Your task to perform on an android device: What's the news in Brazil? Image 0: 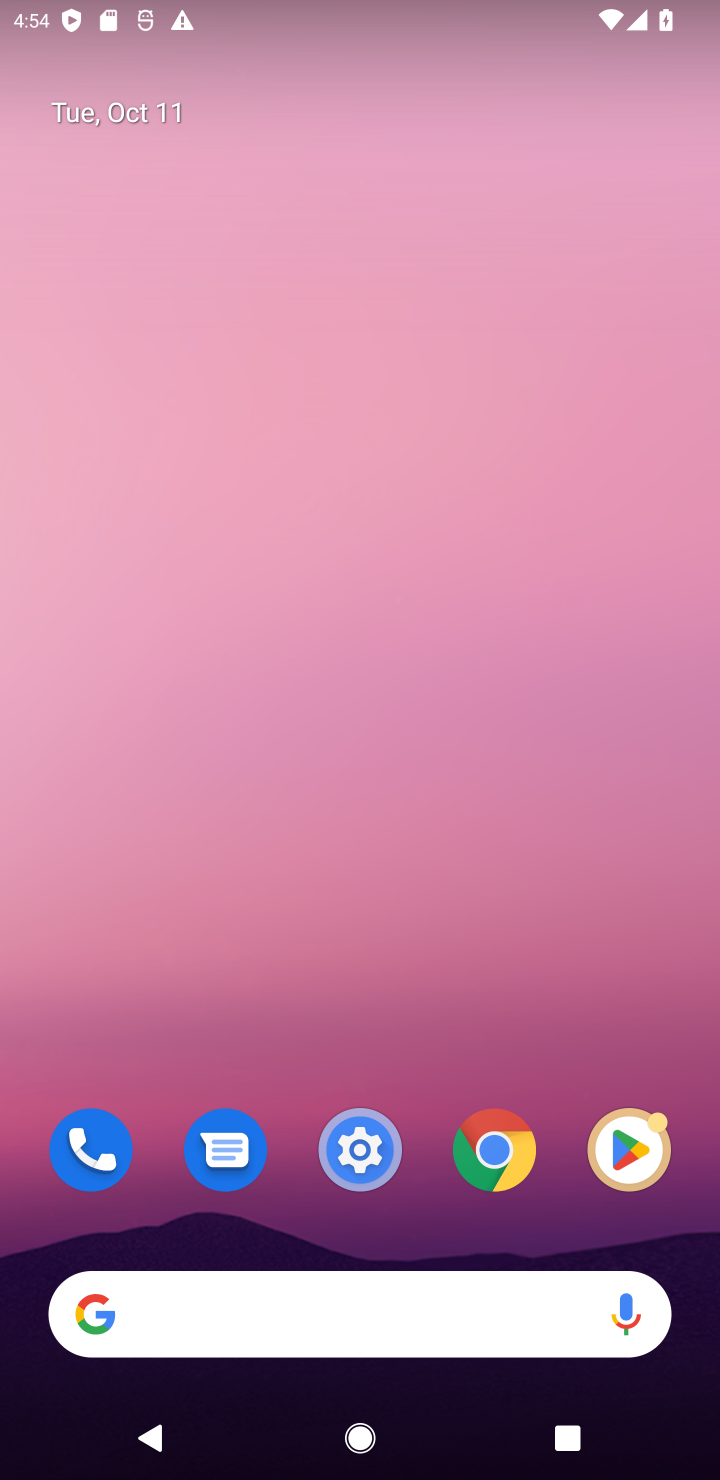
Step 0: click (488, 1151)
Your task to perform on an android device: What's the news in Brazil? Image 1: 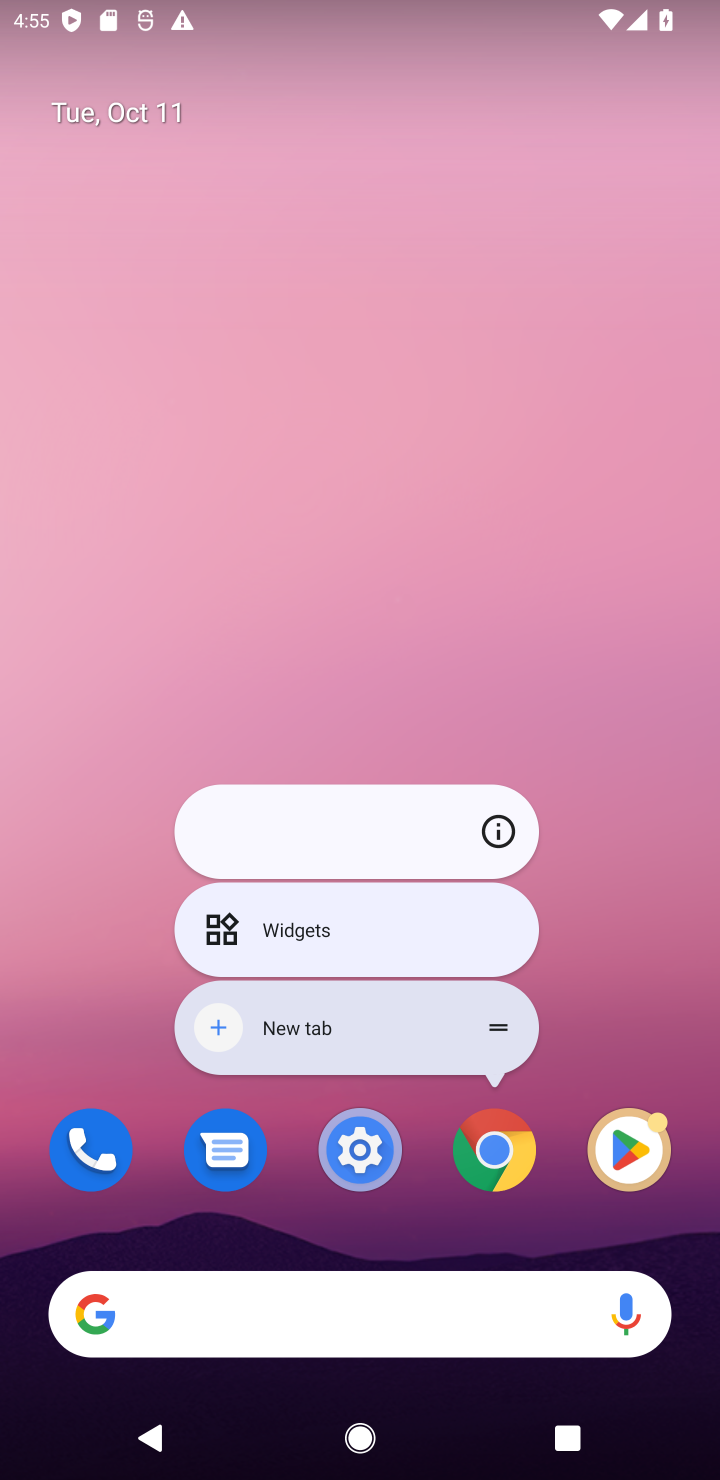
Step 1: click (605, 978)
Your task to perform on an android device: What's the news in Brazil? Image 2: 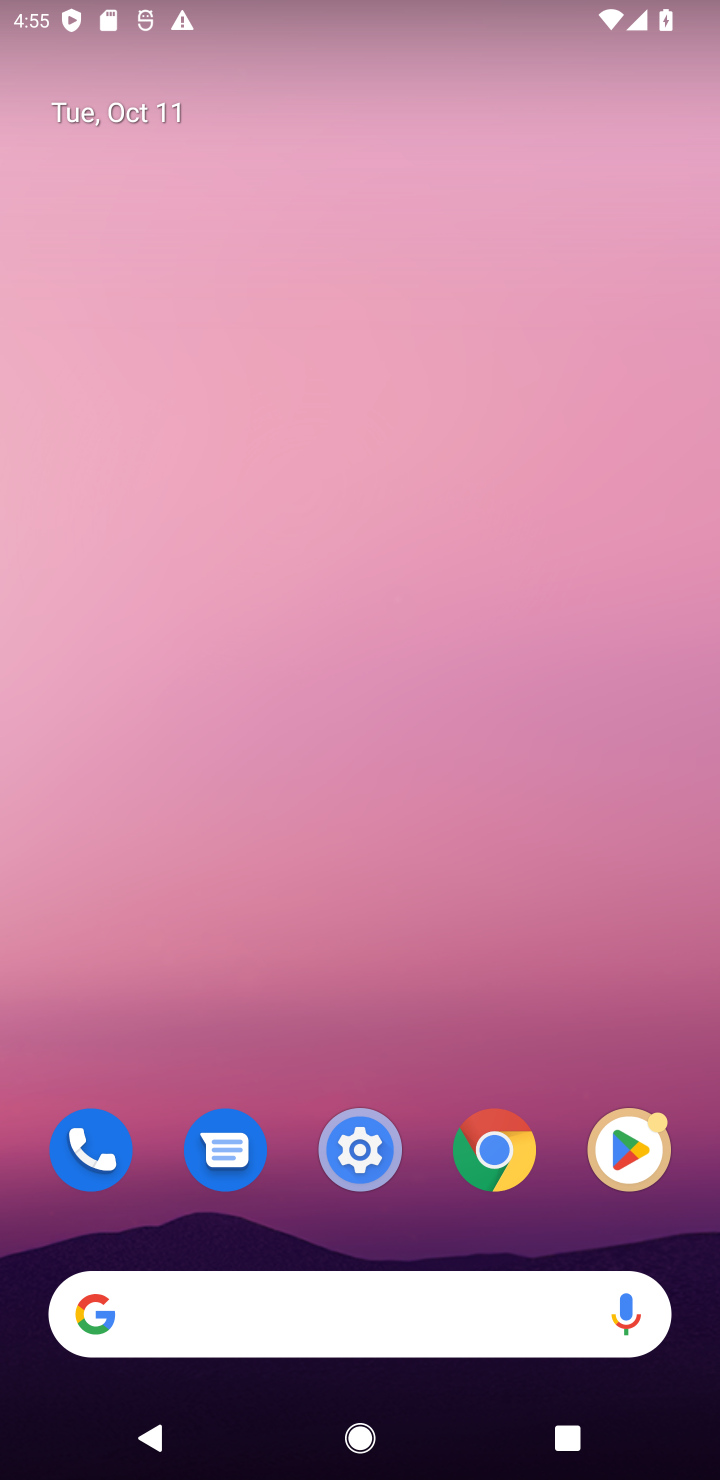
Step 2: click (513, 1158)
Your task to perform on an android device: What's the news in Brazil? Image 3: 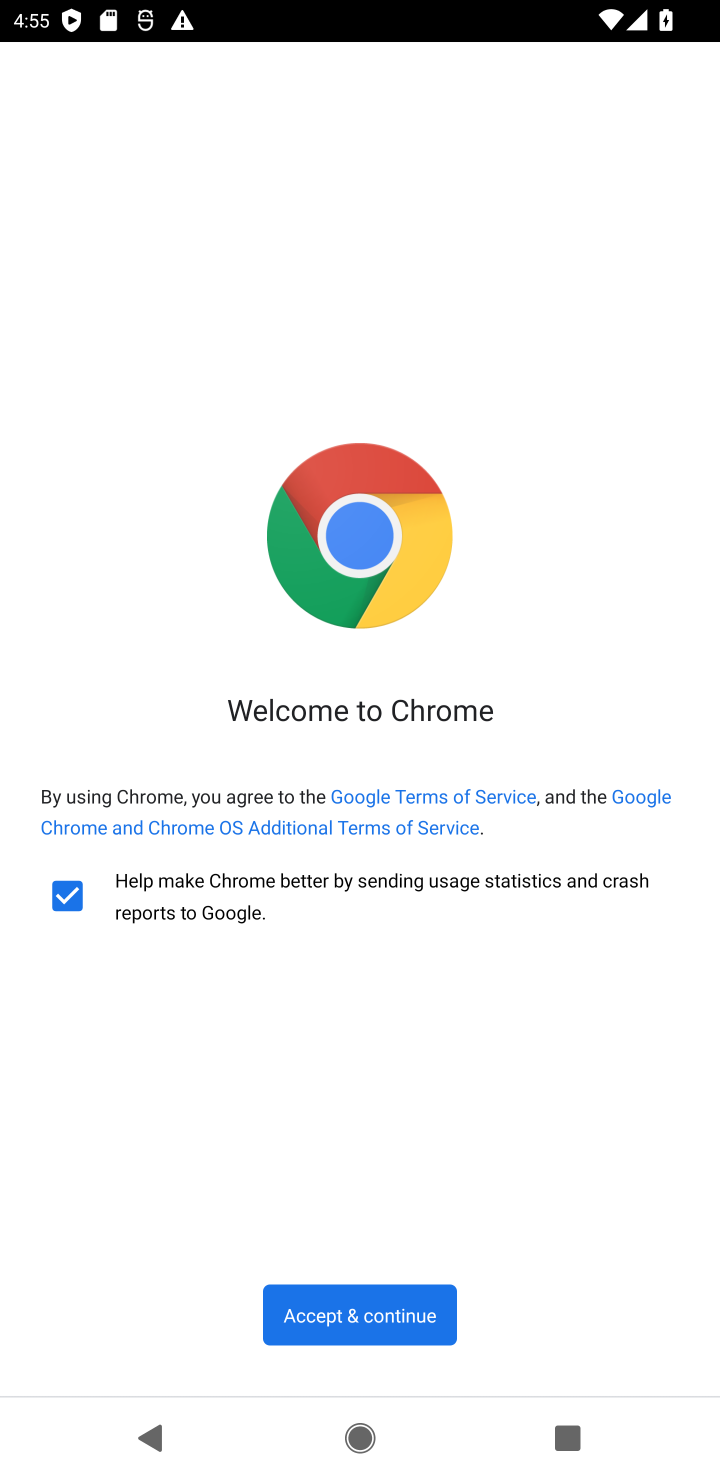
Step 3: click (283, 1295)
Your task to perform on an android device: What's the news in Brazil? Image 4: 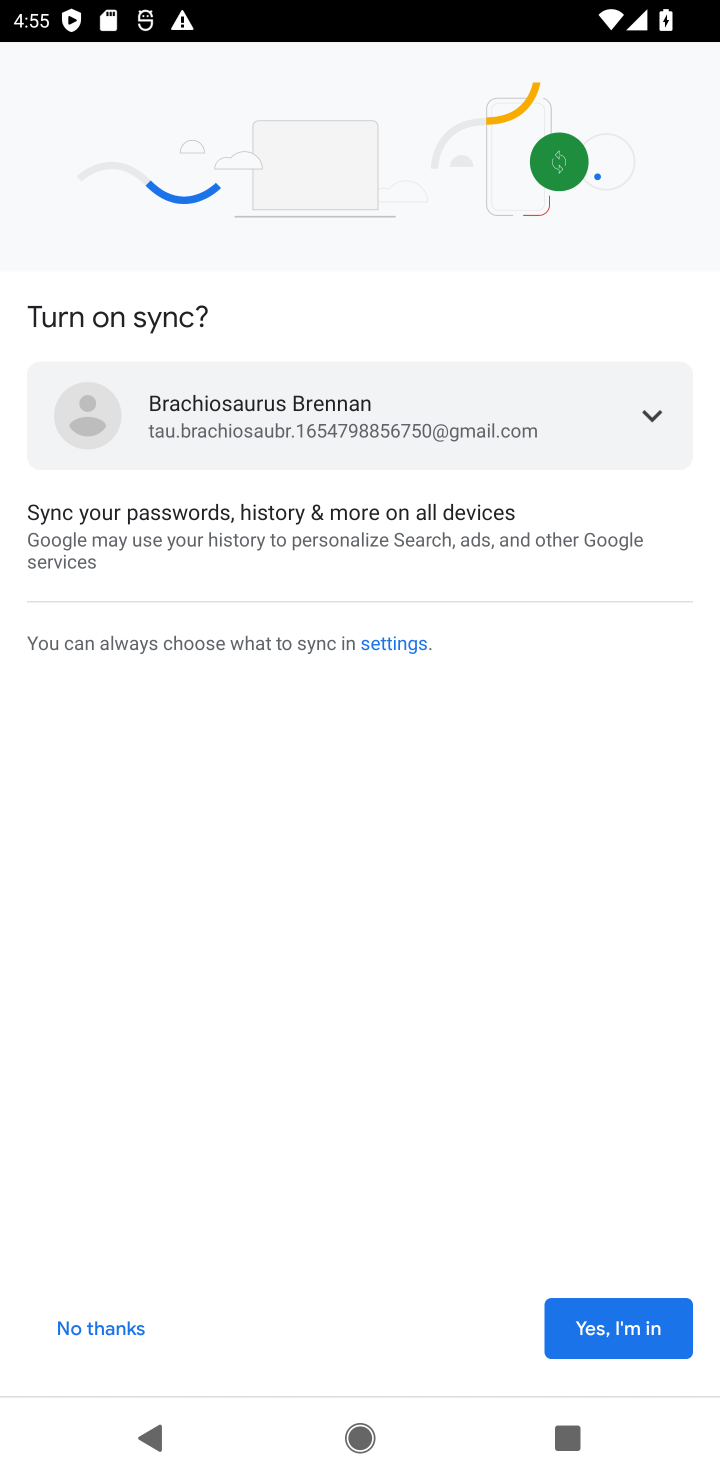
Step 4: click (111, 1329)
Your task to perform on an android device: What's the news in Brazil? Image 5: 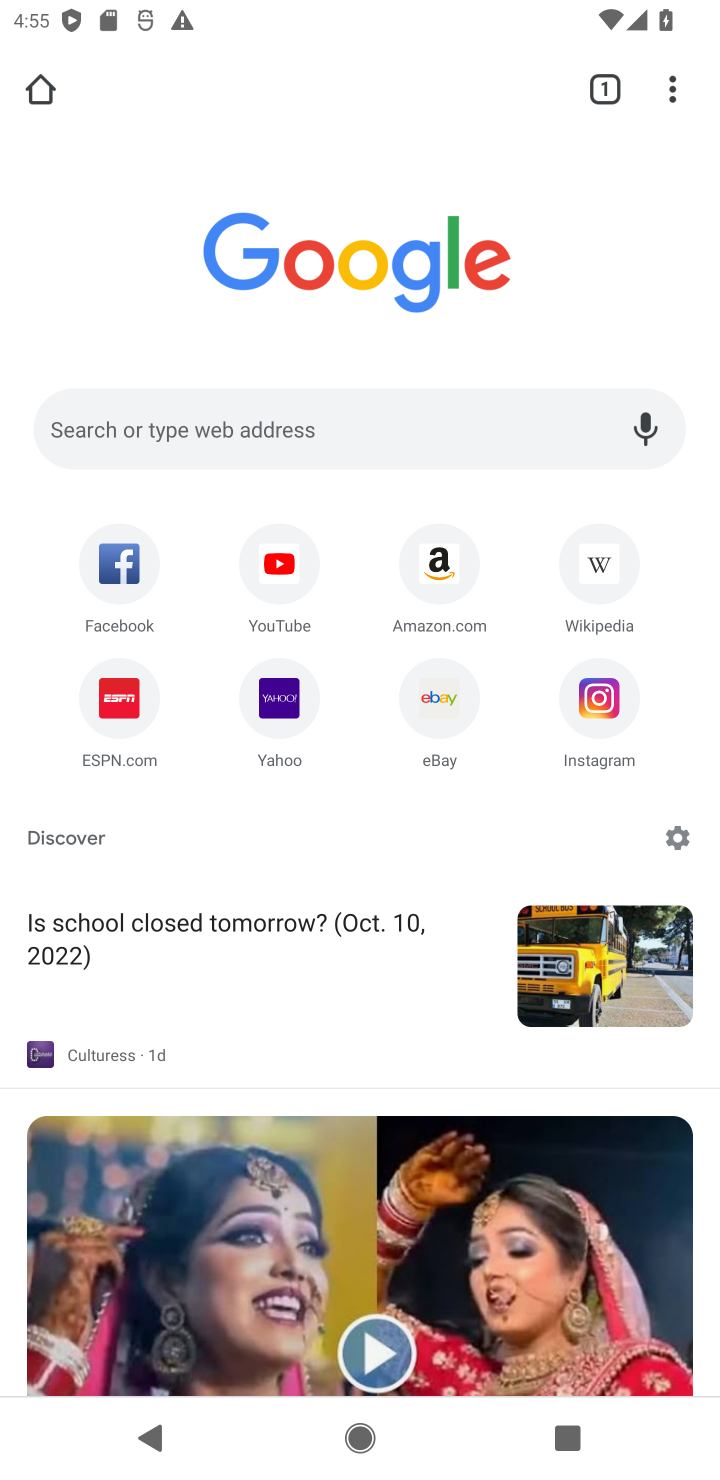
Step 5: click (269, 436)
Your task to perform on an android device: What's the news in Brazil? Image 6: 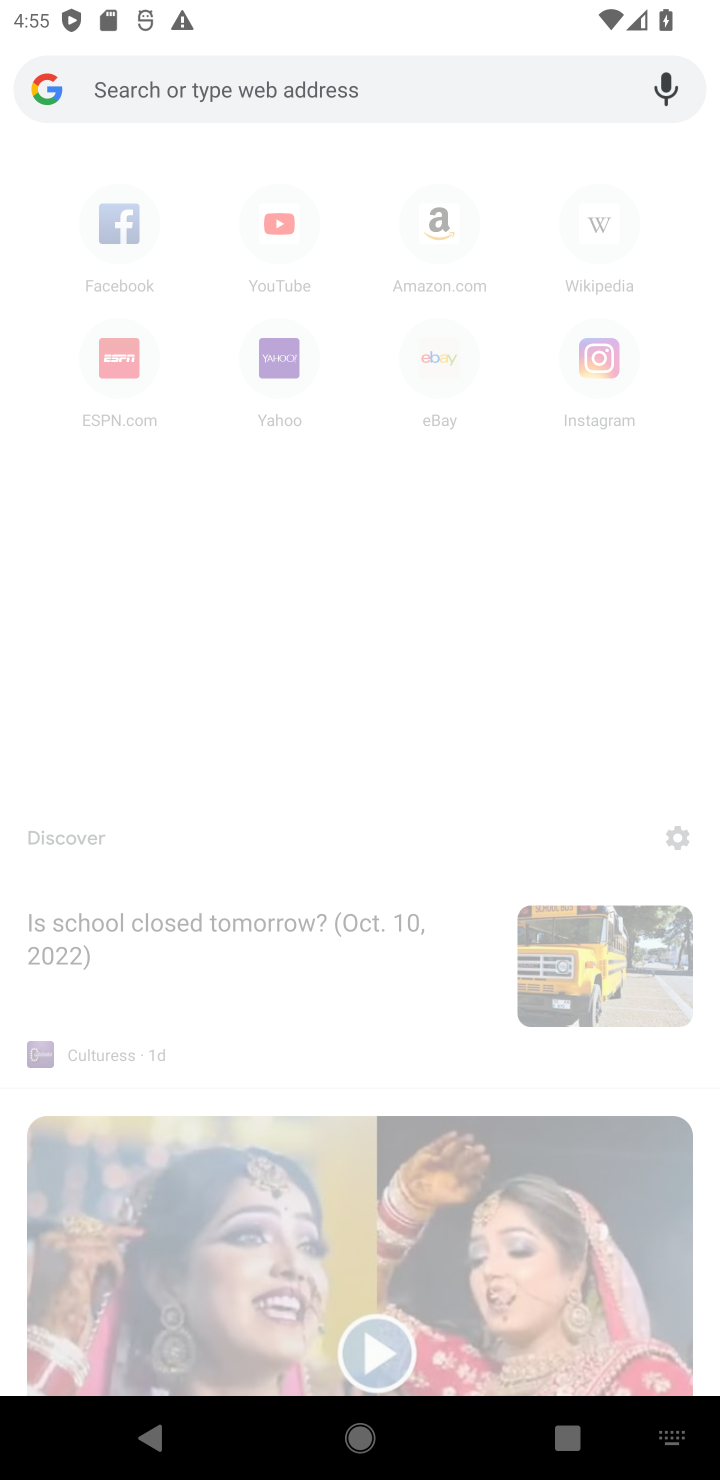
Step 6: type "brazil news"
Your task to perform on an android device: What's the news in Brazil? Image 7: 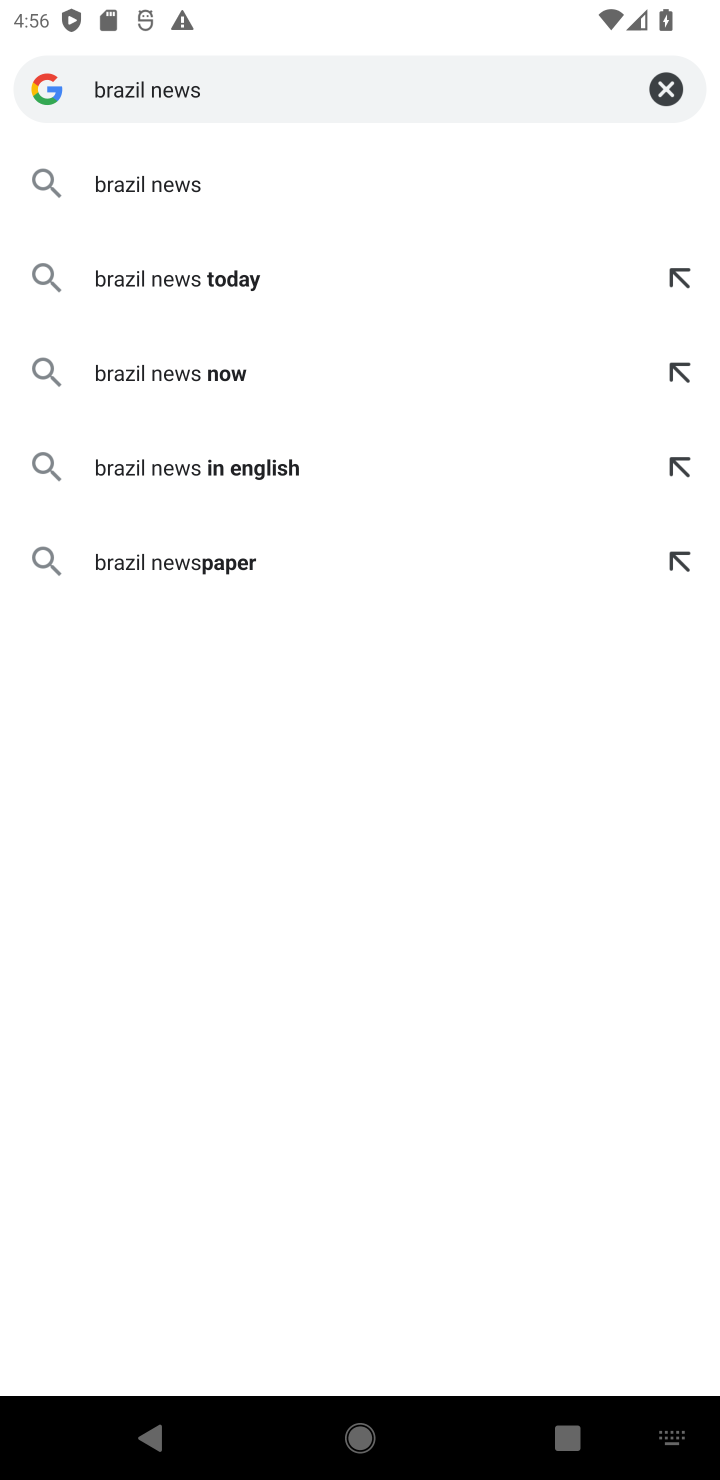
Step 7: click (140, 181)
Your task to perform on an android device: What's the news in Brazil? Image 8: 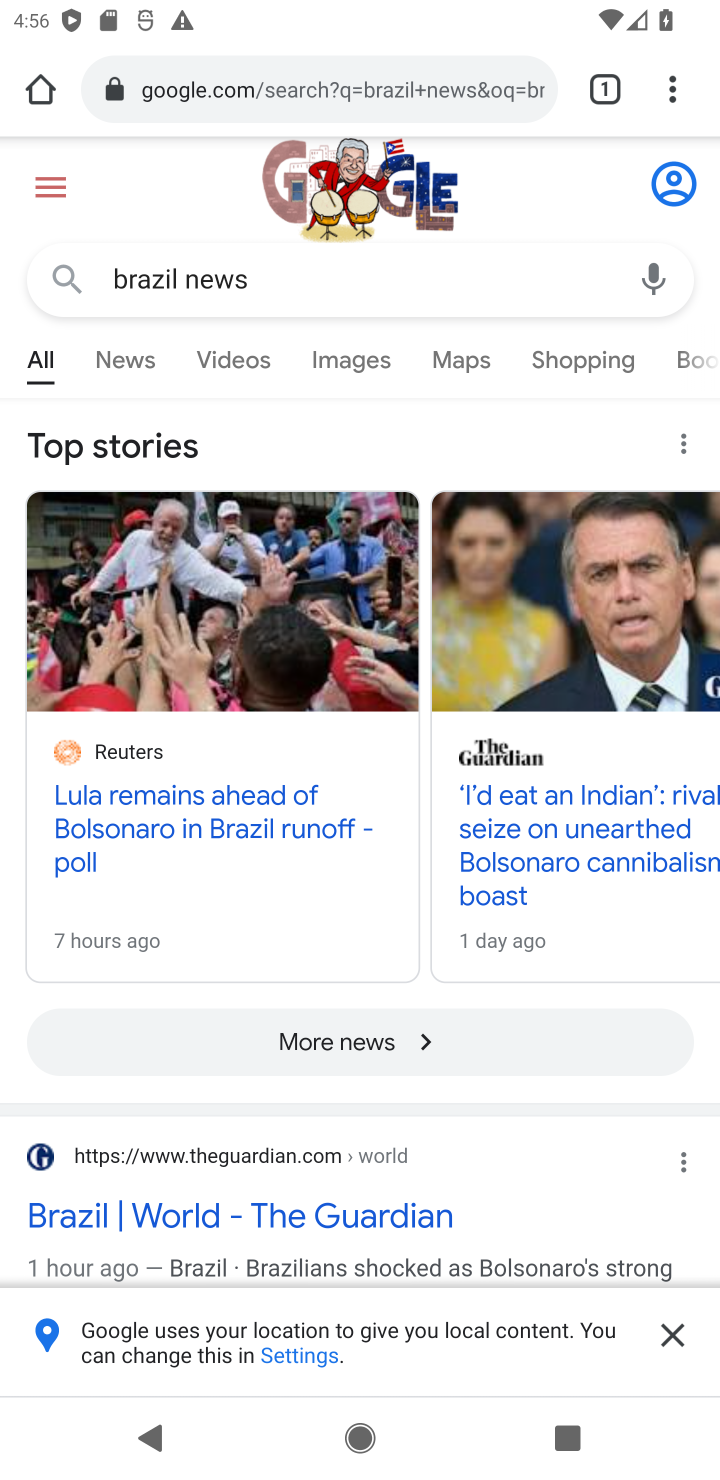
Step 8: click (206, 822)
Your task to perform on an android device: What's the news in Brazil? Image 9: 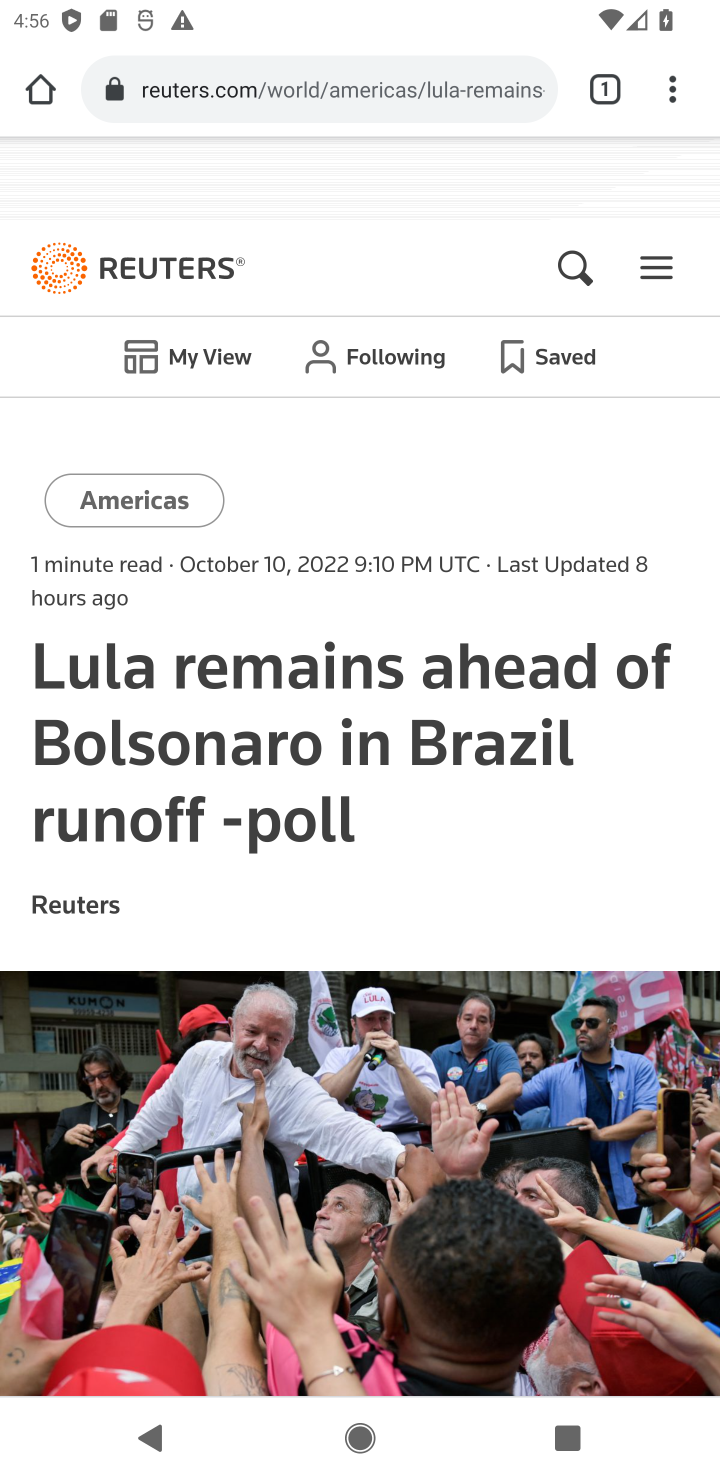
Step 9: task complete